Your task to perform on an android device: Show the shopping cart on amazon. Search for "apple airpods pro" on amazon, select the first entry, add it to the cart, then select checkout. Image 0: 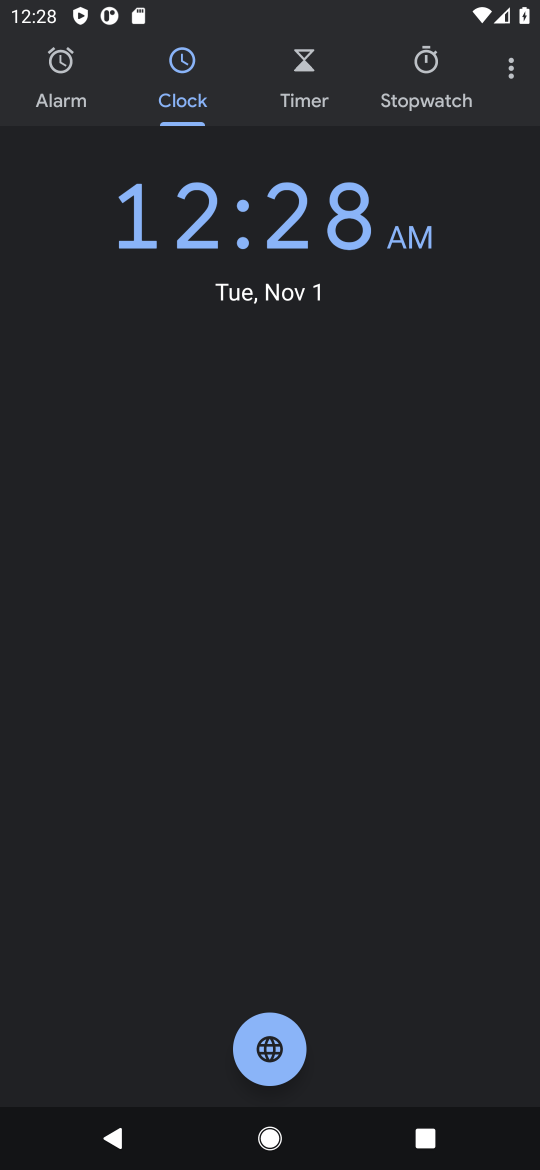
Step 0: press home button
Your task to perform on an android device: Show the shopping cart on amazon. Search for "apple airpods pro" on amazon, select the first entry, add it to the cart, then select checkout. Image 1: 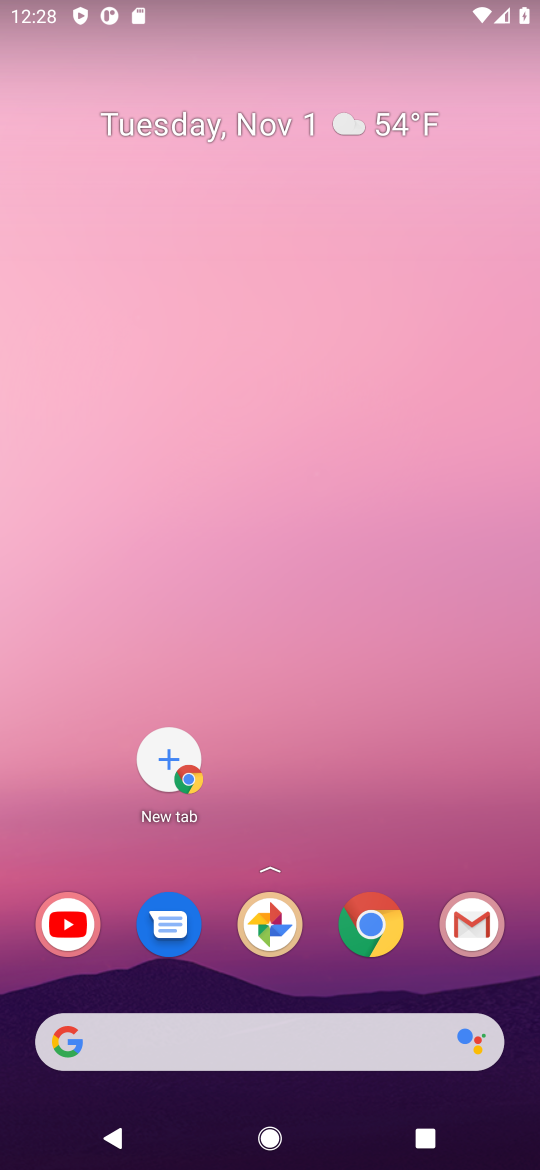
Step 1: click (380, 930)
Your task to perform on an android device: Show the shopping cart on amazon. Search for "apple airpods pro" on amazon, select the first entry, add it to the cart, then select checkout. Image 2: 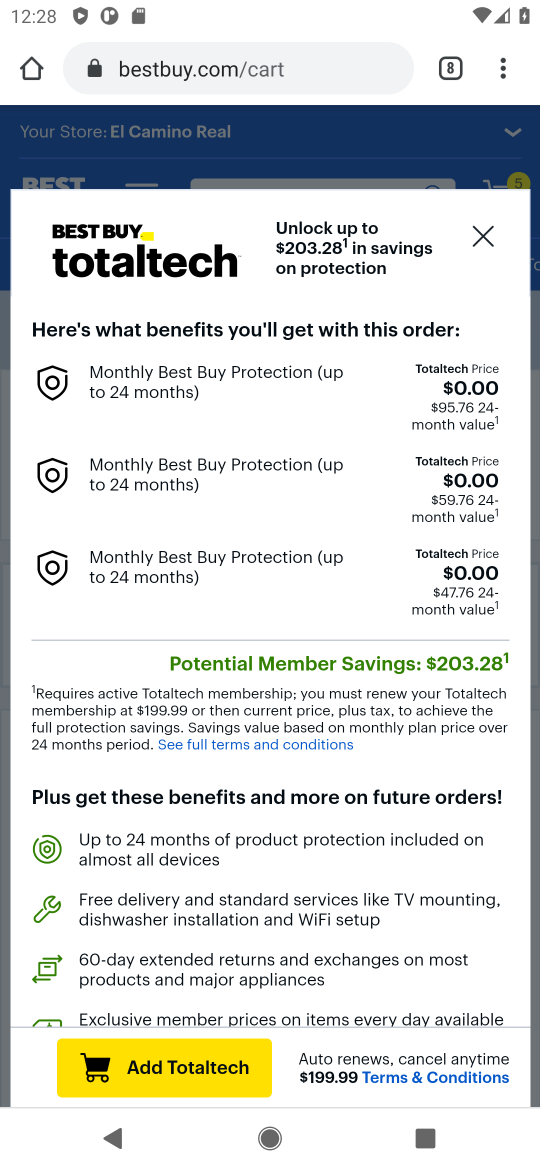
Step 2: click (249, 66)
Your task to perform on an android device: Show the shopping cart on amazon. Search for "apple airpods pro" on amazon, select the first entry, add it to the cart, then select checkout. Image 3: 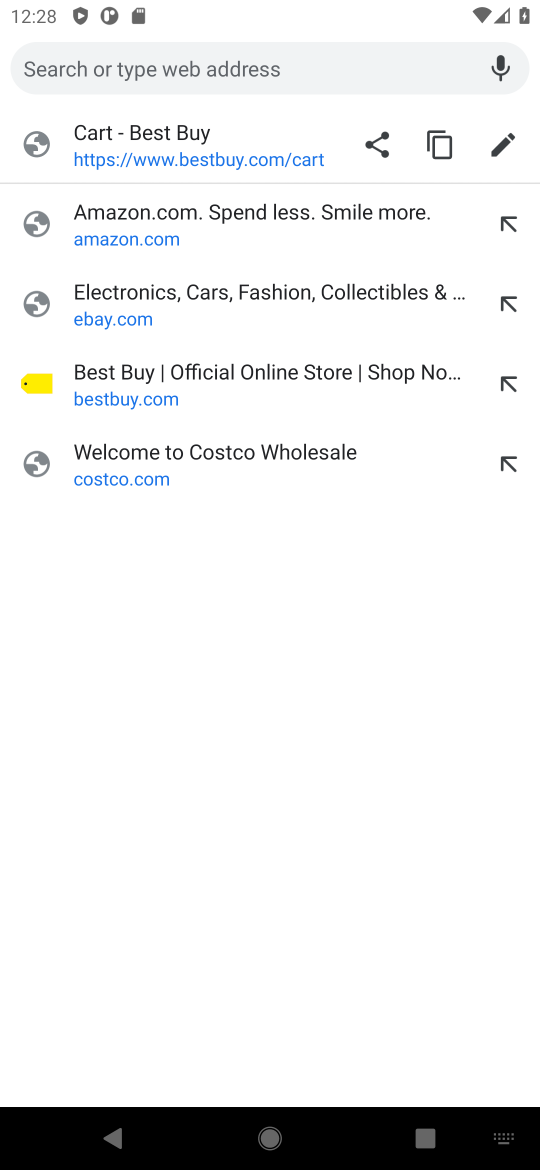
Step 3: type "amazon"
Your task to perform on an android device: Show the shopping cart on amazon. Search for "apple airpods pro" on amazon, select the first entry, add it to the cart, then select checkout. Image 4: 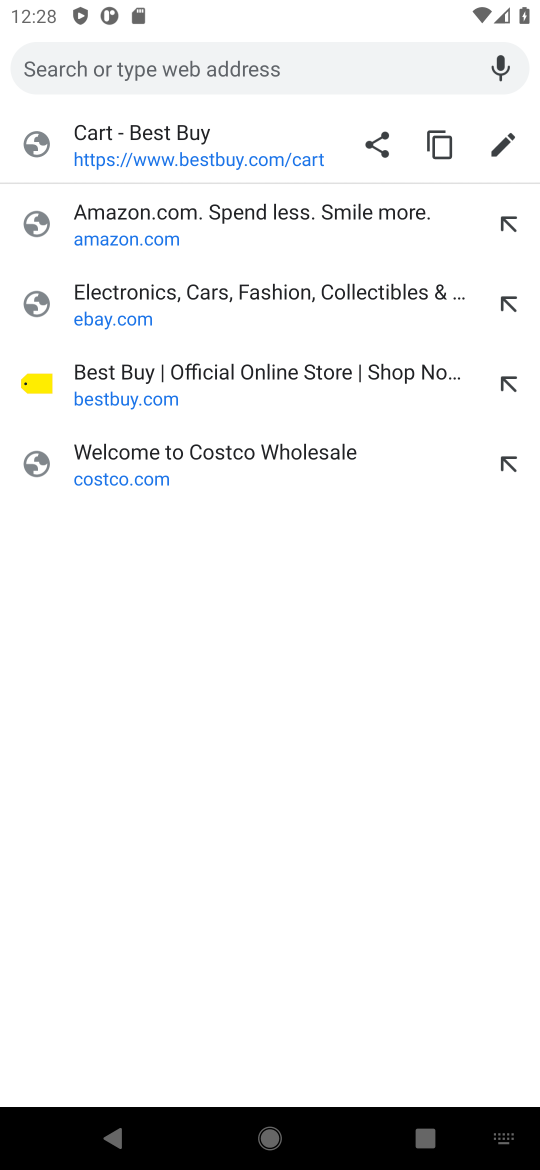
Step 4: click (198, 219)
Your task to perform on an android device: Show the shopping cart on amazon. Search for "apple airpods pro" on amazon, select the first entry, add it to the cart, then select checkout. Image 5: 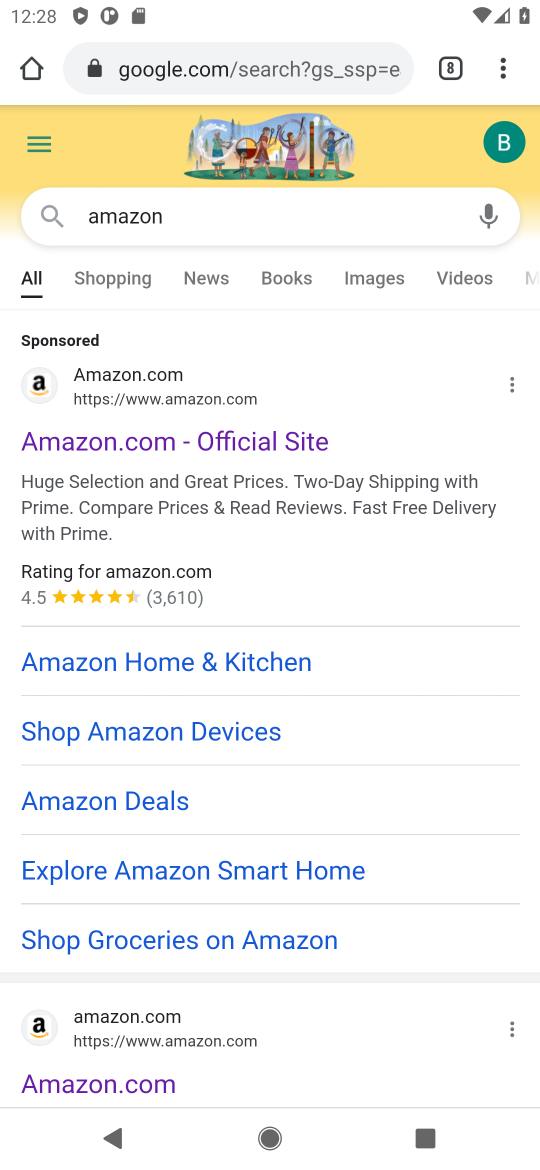
Step 5: click (152, 436)
Your task to perform on an android device: Show the shopping cart on amazon. Search for "apple airpods pro" on amazon, select the first entry, add it to the cart, then select checkout. Image 6: 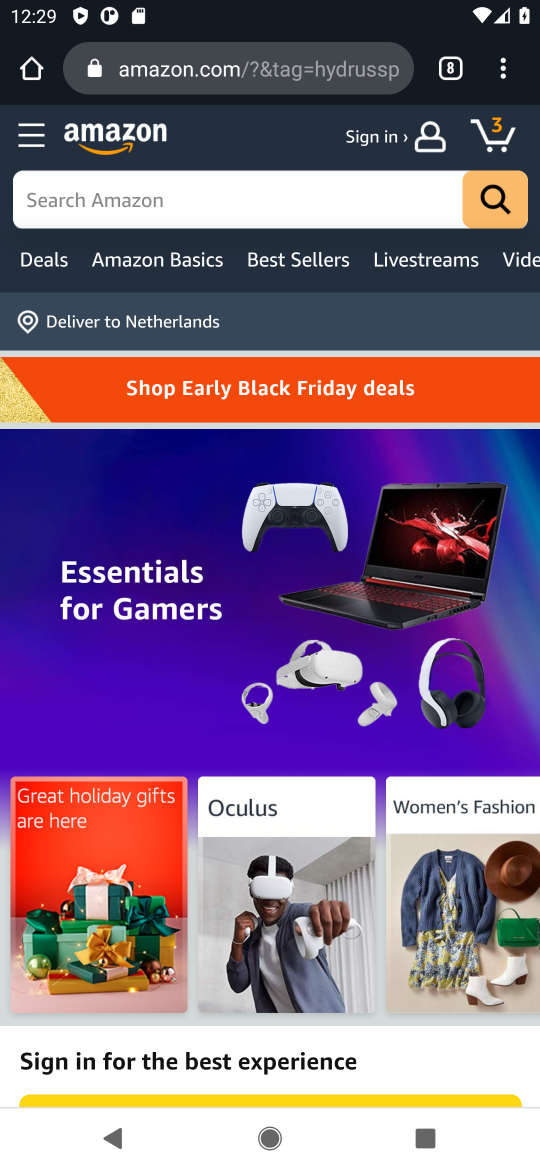
Step 6: click (173, 200)
Your task to perform on an android device: Show the shopping cart on amazon. Search for "apple airpods pro" on amazon, select the first entry, add it to the cart, then select checkout. Image 7: 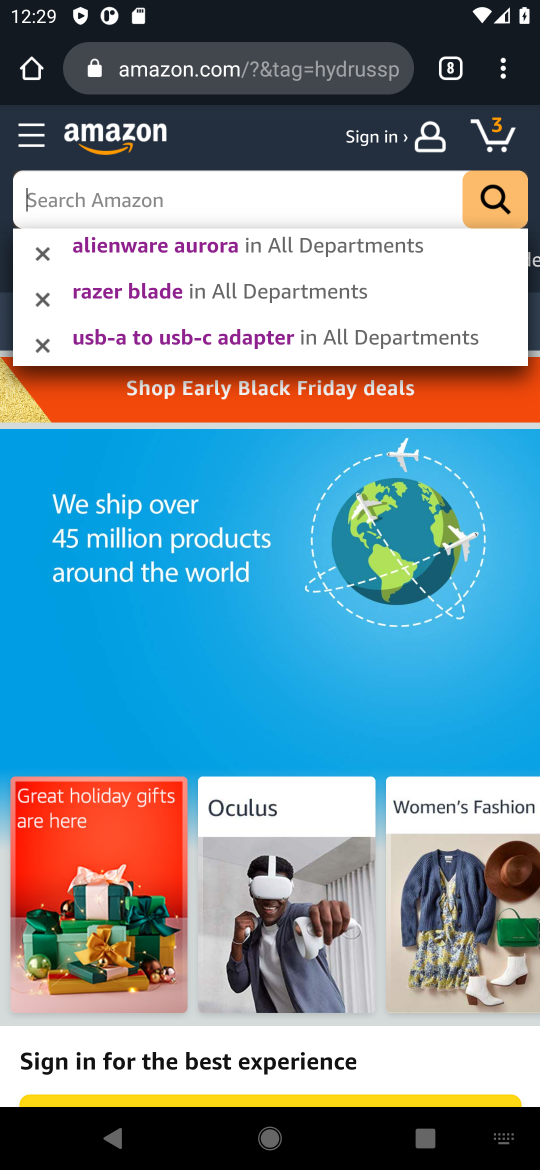
Step 7: type "apple airpods pro"
Your task to perform on an android device: Show the shopping cart on amazon. Search for "apple airpods pro" on amazon, select the first entry, add it to the cart, then select checkout. Image 8: 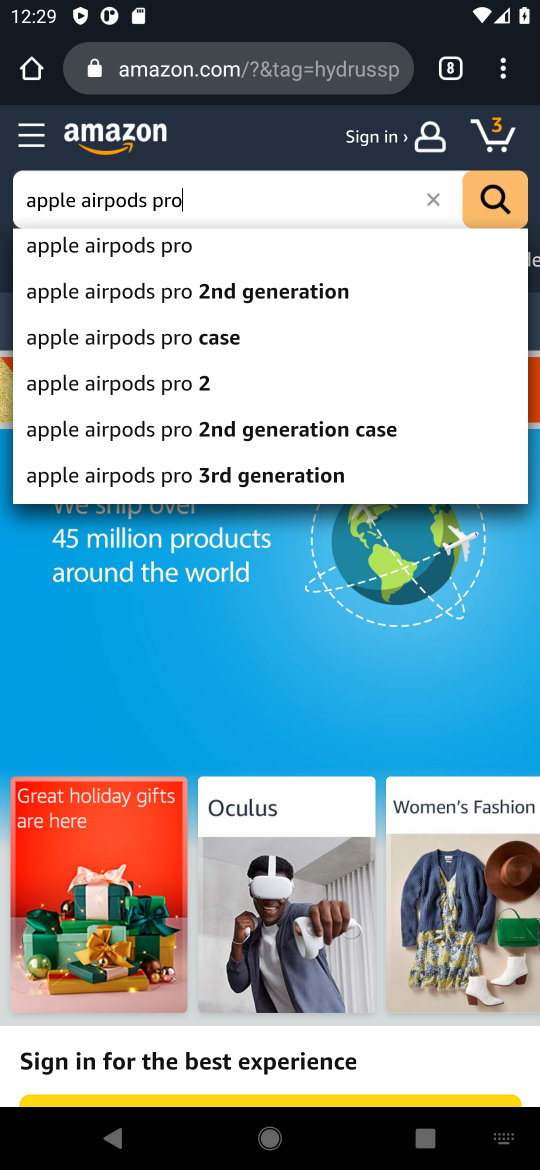
Step 8: click (111, 253)
Your task to perform on an android device: Show the shopping cart on amazon. Search for "apple airpods pro" on amazon, select the first entry, add it to the cart, then select checkout. Image 9: 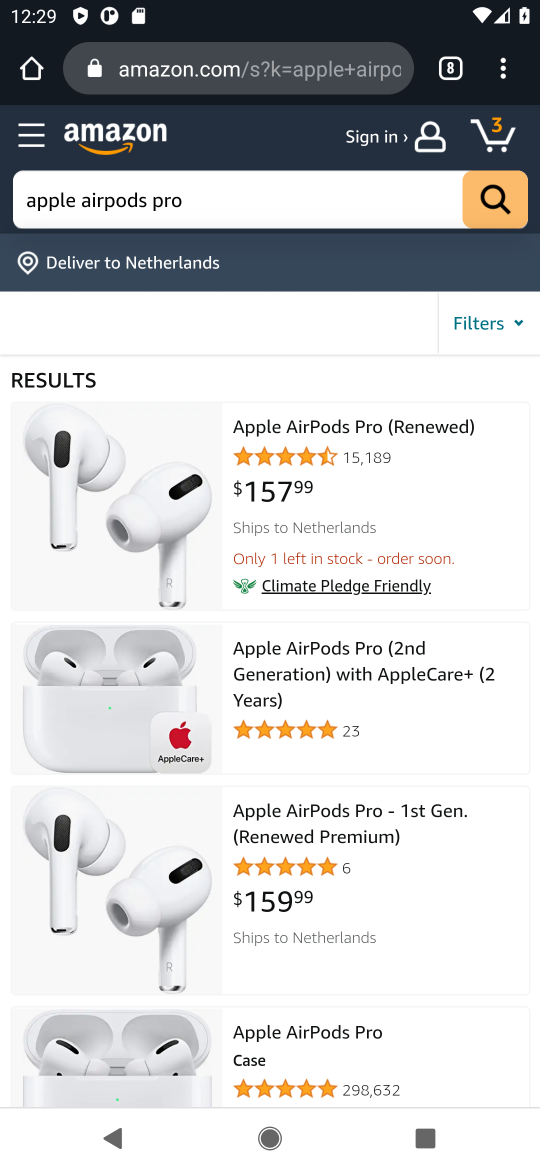
Step 9: click (134, 512)
Your task to perform on an android device: Show the shopping cart on amazon. Search for "apple airpods pro" on amazon, select the first entry, add it to the cart, then select checkout. Image 10: 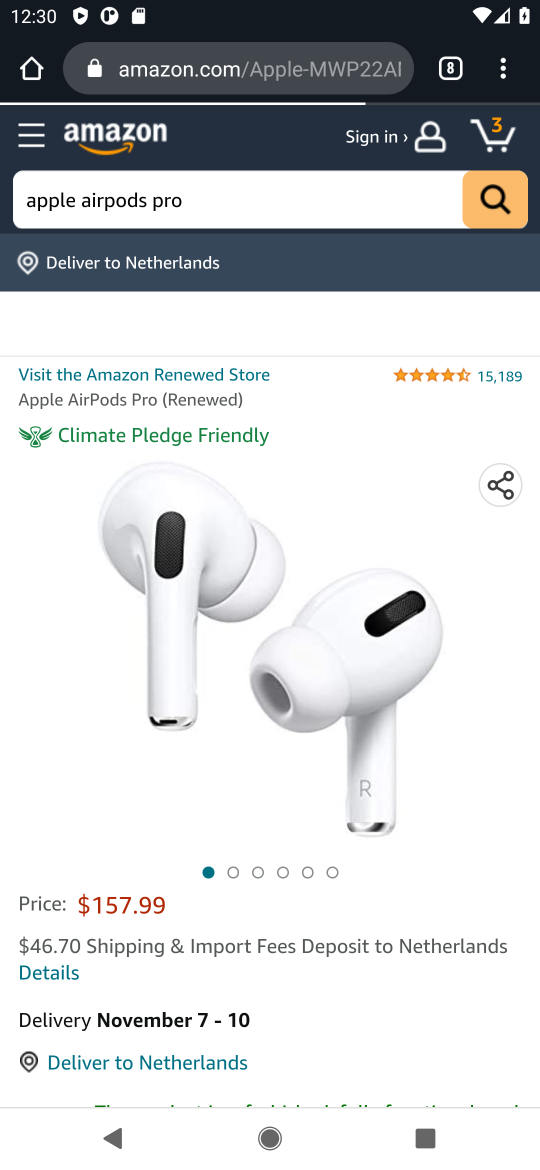
Step 10: drag from (329, 791) to (366, 496)
Your task to perform on an android device: Show the shopping cart on amazon. Search for "apple airpods pro" on amazon, select the first entry, add it to the cart, then select checkout. Image 11: 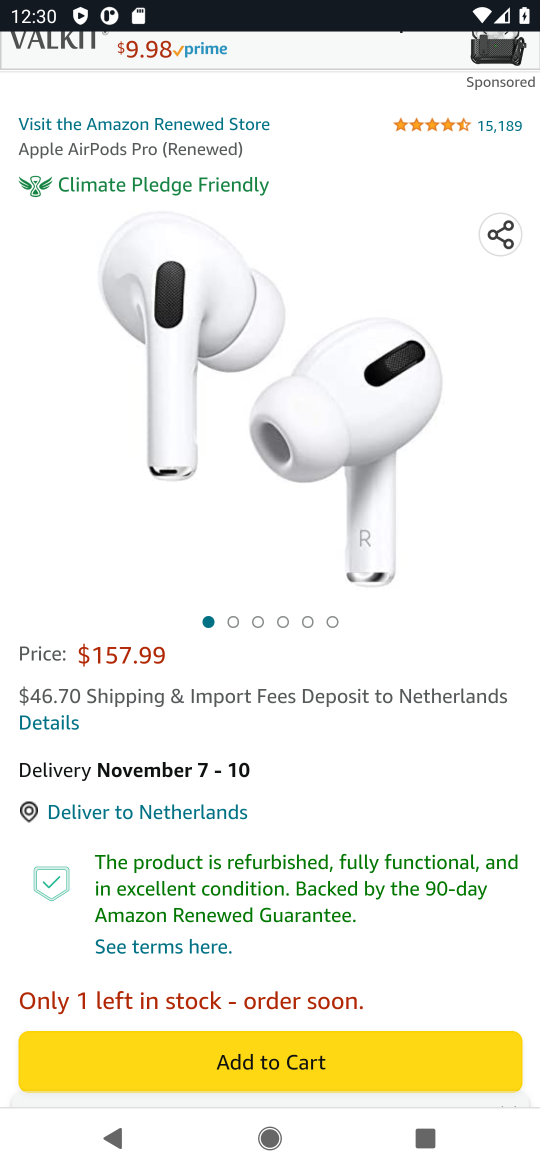
Step 11: click (282, 1065)
Your task to perform on an android device: Show the shopping cart on amazon. Search for "apple airpods pro" on amazon, select the first entry, add it to the cart, then select checkout. Image 12: 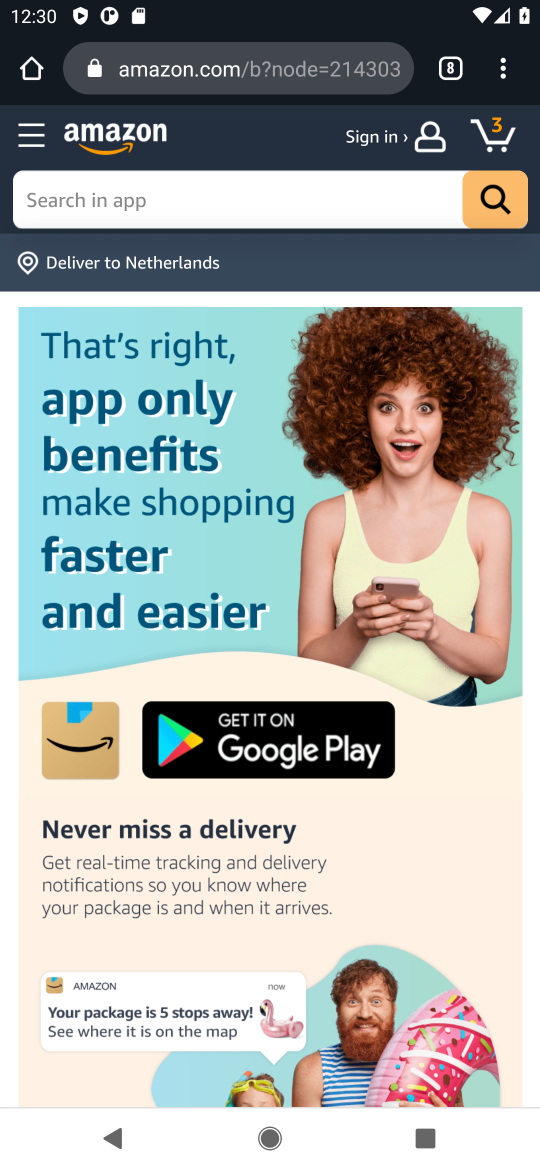
Step 12: click (488, 131)
Your task to perform on an android device: Show the shopping cart on amazon. Search for "apple airpods pro" on amazon, select the first entry, add it to the cart, then select checkout. Image 13: 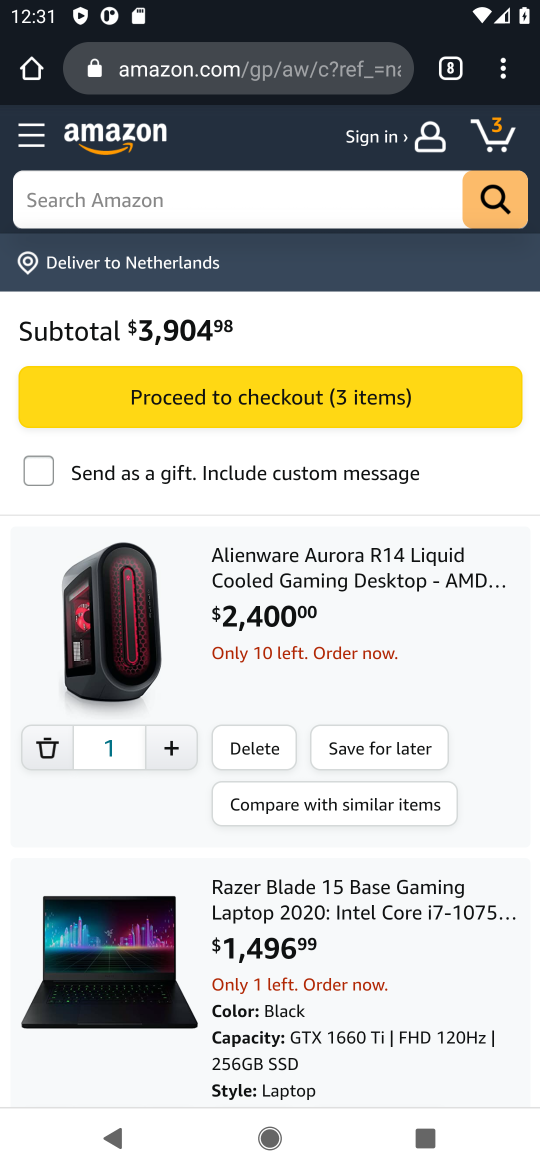
Step 13: click (123, 600)
Your task to perform on an android device: Show the shopping cart on amazon. Search for "apple airpods pro" on amazon, select the first entry, add it to the cart, then select checkout. Image 14: 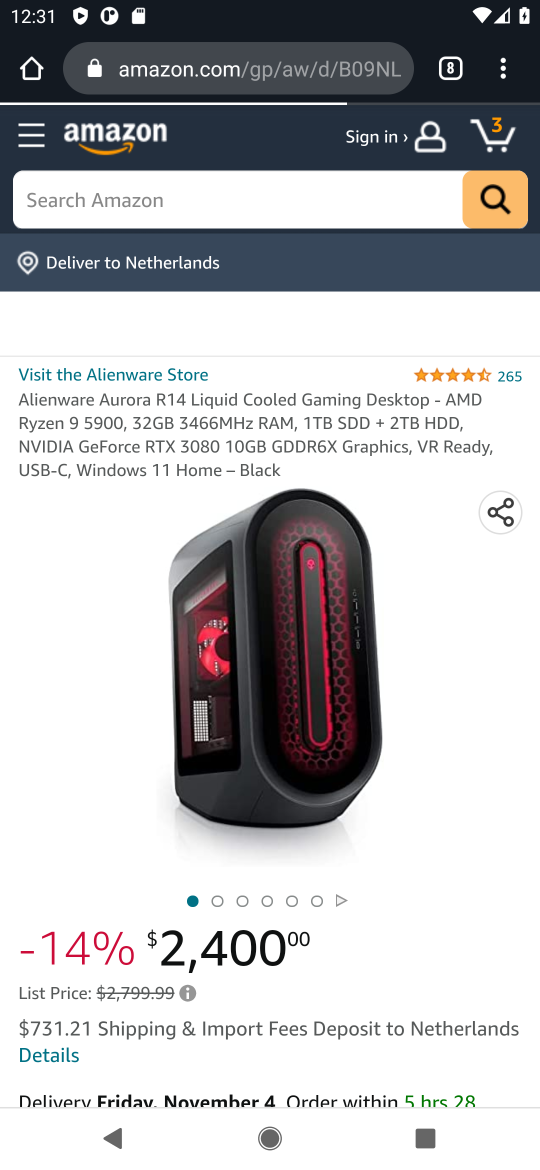
Step 14: drag from (330, 776) to (364, 417)
Your task to perform on an android device: Show the shopping cart on amazon. Search for "apple airpods pro" on amazon, select the first entry, add it to the cart, then select checkout. Image 15: 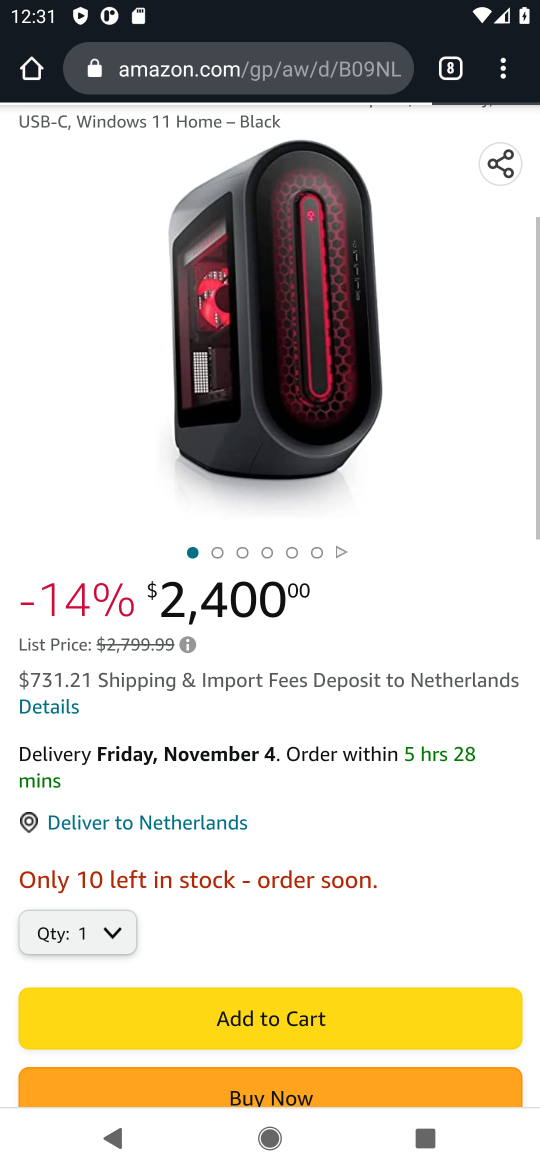
Step 15: drag from (259, 677) to (302, 405)
Your task to perform on an android device: Show the shopping cart on amazon. Search for "apple airpods pro" on amazon, select the first entry, add it to the cart, then select checkout. Image 16: 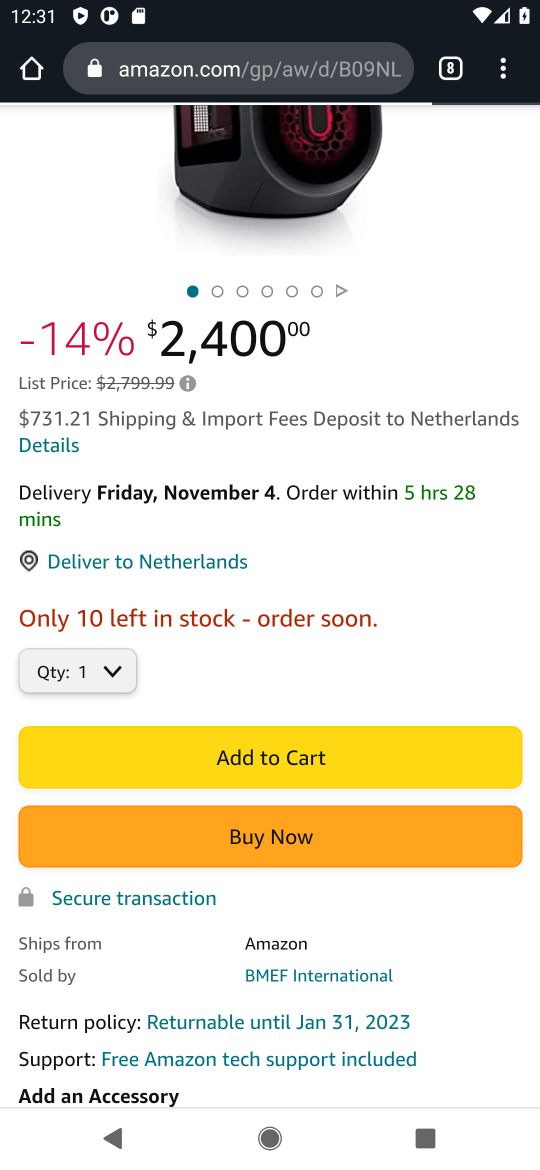
Step 16: click (273, 753)
Your task to perform on an android device: Show the shopping cart on amazon. Search for "apple airpods pro" on amazon, select the first entry, add it to the cart, then select checkout. Image 17: 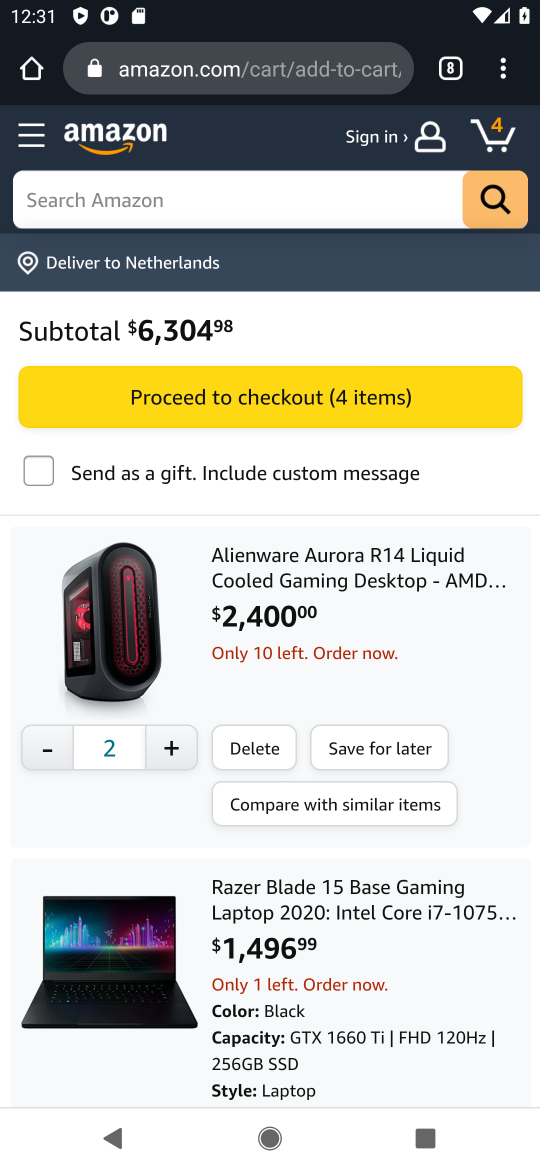
Step 17: click (249, 401)
Your task to perform on an android device: Show the shopping cart on amazon. Search for "apple airpods pro" on amazon, select the first entry, add it to the cart, then select checkout. Image 18: 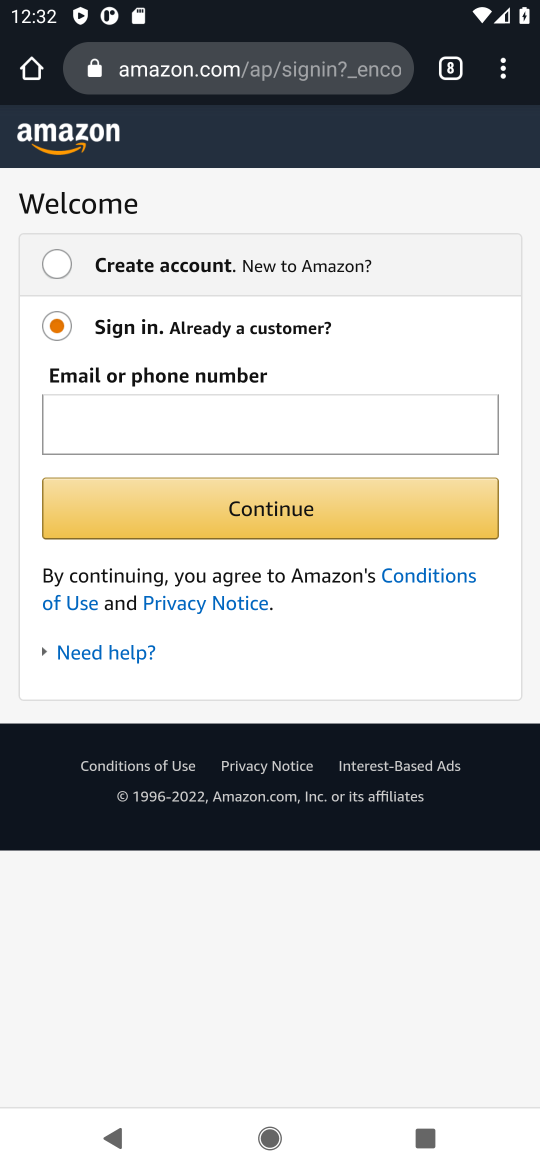
Step 18: task complete